Your task to perform on an android device: Clear all items from cart on bestbuy. Search for razer blade on bestbuy, select the first entry, add it to the cart, then select checkout. Image 0: 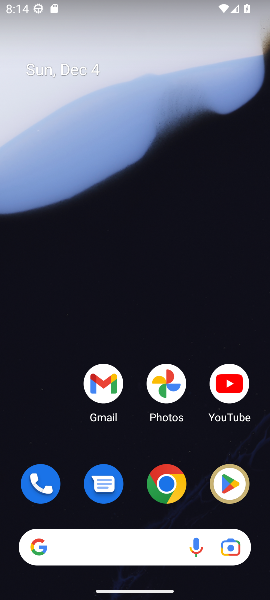
Step 0: click (168, 481)
Your task to perform on an android device: Clear all items from cart on bestbuy. Search for razer blade on bestbuy, select the first entry, add it to the cart, then select checkout. Image 1: 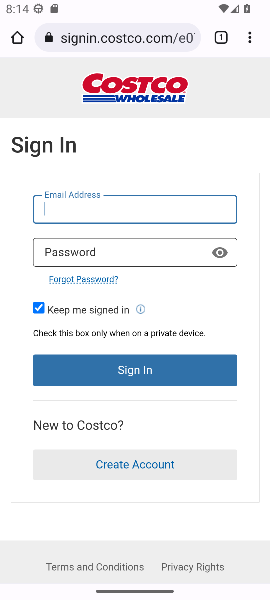
Step 1: click (115, 39)
Your task to perform on an android device: Clear all items from cart on bestbuy. Search for razer blade on bestbuy, select the first entry, add it to the cart, then select checkout. Image 2: 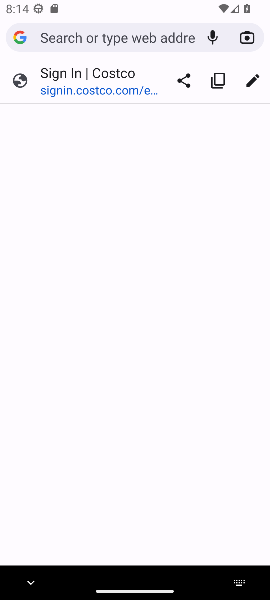
Step 2: type "bestbuy.com"
Your task to perform on an android device: Clear all items from cart on bestbuy. Search for razer blade on bestbuy, select the first entry, add it to the cart, then select checkout. Image 3: 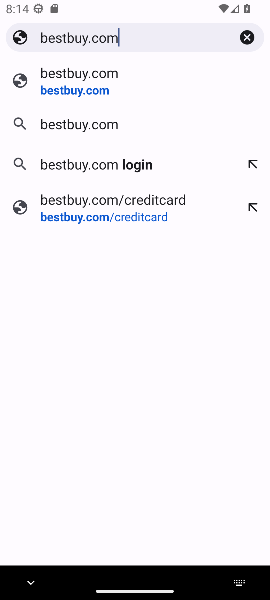
Step 3: click (78, 95)
Your task to perform on an android device: Clear all items from cart on bestbuy. Search for razer blade on bestbuy, select the first entry, add it to the cart, then select checkout. Image 4: 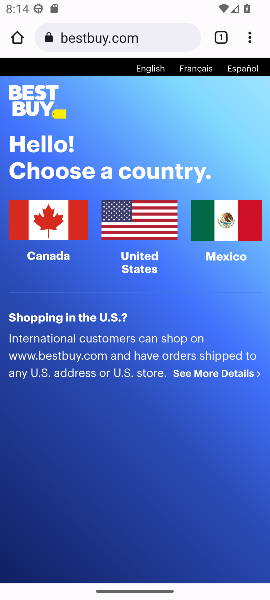
Step 4: click (133, 234)
Your task to perform on an android device: Clear all items from cart on bestbuy. Search for razer blade on bestbuy, select the first entry, add it to the cart, then select checkout. Image 5: 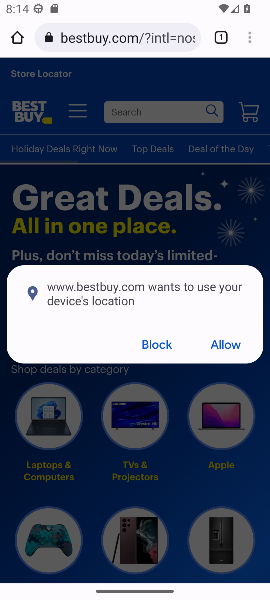
Step 5: click (251, 113)
Your task to perform on an android device: Clear all items from cart on bestbuy. Search for razer blade on bestbuy, select the first entry, add it to the cart, then select checkout. Image 6: 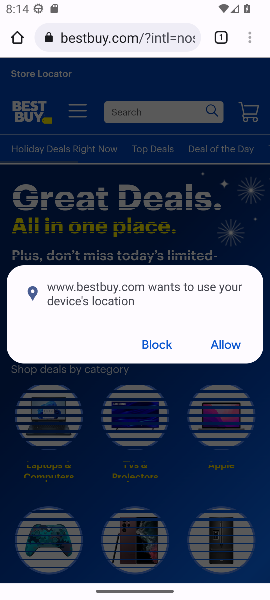
Step 6: click (148, 343)
Your task to perform on an android device: Clear all items from cart on bestbuy. Search for razer blade on bestbuy, select the first entry, add it to the cart, then select checkout. Image 7: 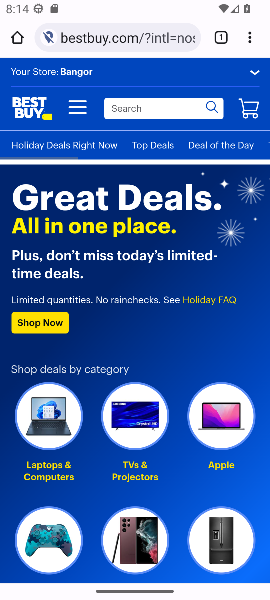
Step 7: click (243, 106)
Your task to perform on an android device: Clear all items from cart on bestbuy. Search for razer blade on bestbuy, select the first entry, add it to the cart, then select checkout. Image 8: 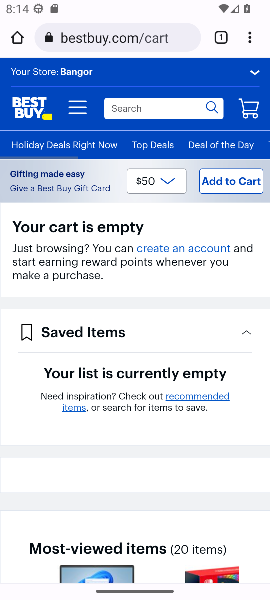
Step 8: click (150, 109)
Your task to perform on an android device: Clear all items from cart on bestbuy. Search for razer blade on bestbuy, select the first entry, add it to the cart, then select checkout. Image 9: 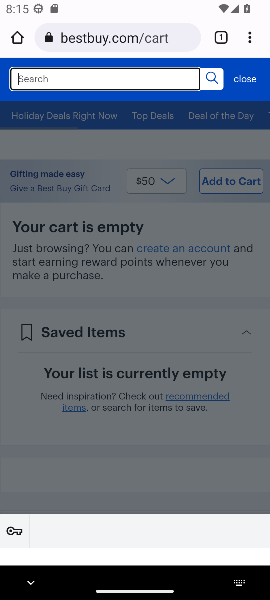
Step 9: type "razer blade"
Your task to perform on an android device: Clear all items from cart on bestbuy. Search for razer blade on bestbuy, select the first entry, add it to the cart, then select checkout. Image 10: 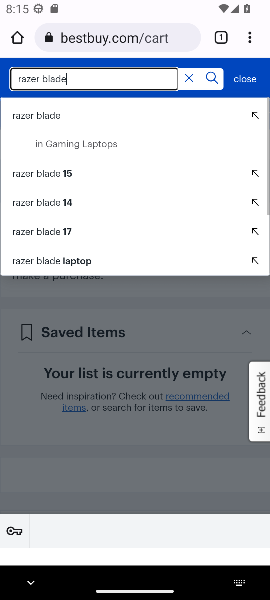
Step 10: click (27, 112)
Your task to perform on an android device: Clear all items from cart on bestbuy. Search for razer blade on bestbuy, select the first entry, add it to the cart, then select checkout. Image 11: 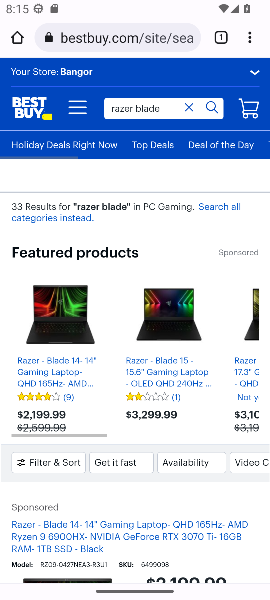
Step 11: drag from (172, 486) to (163, 311)
Your task to perform on an android device: Clear all items from cart on bestbuy. Search for razer blade on bestbuy, select the first entry, add it to the cart, then select checkout. Image 12: 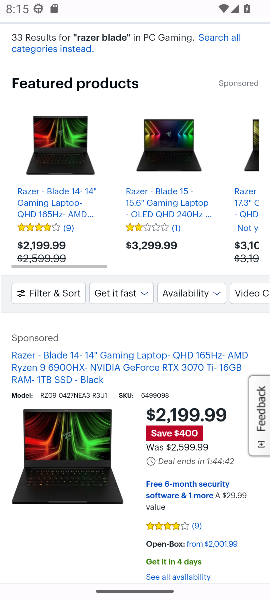
Step 12: drag from (255, 507) to (255, 428)
Your task to perform on an android device: Clear all items from cart on bestbuy. Search for razer blade on bestbuy, select the first entry, add it to the cart, then select checkout. Image 13: 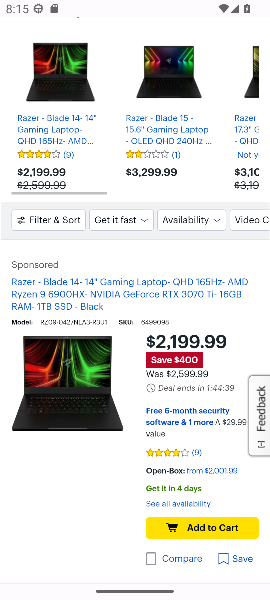
Step 13: click (195, 525)
Your task to perform on an android device: Clear all items from cart on bestbuy. Search for razer blade on bestbuy, select the first entry, add it to the cart, then select checkout. Image 14: 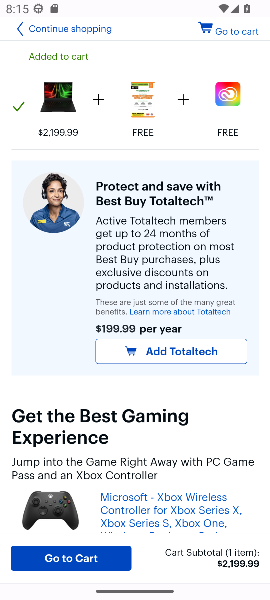
Step 14: click (234, 31)
Your task to perform on an android device: Clear all items from cart on bestbuy. Search for razer blade on bestbuy, select the first entry, add it to the cart, then select checkout. Image 15: 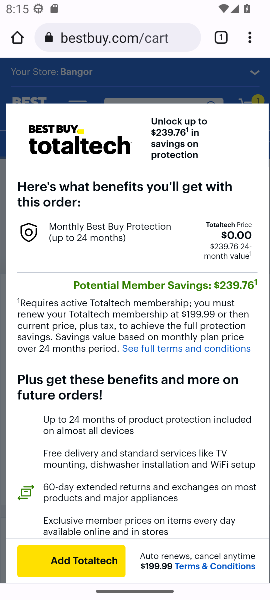
Step 15: click (154, 465)
Your task to perform on an android device: Clear all items from cart on bestbuy. Search for razer blade on bestbuy, select the first entry, add it to the cart, then select checkout. Image 16: 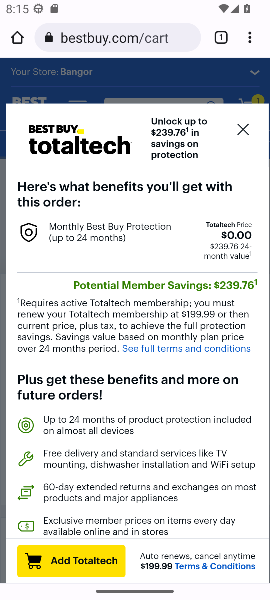
Step 16: click (242, 131)
Your task to perform on an android device: Clear all items from cart on bestbuy. Search for razer blade on bestbuy, select the first entry, add it to the cart, then select checkout. Image 17: 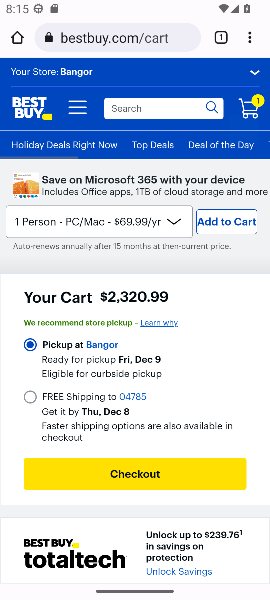
Step 17: click (147, 465)
Your task to perform on an android device: Clear all items from cart on bestbuy. Search for razer blade on bestbuy, select the first entry, add it to the cart, then select checkout. Image 18: 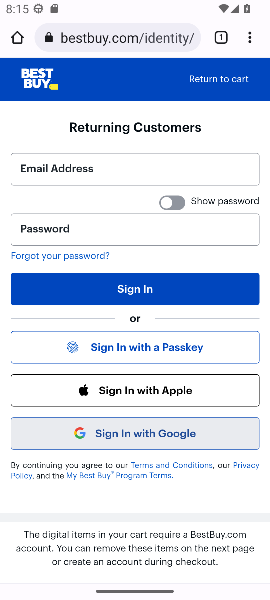
Step 18: task complete